Your task to perform on an android device: Check the news Image 0: 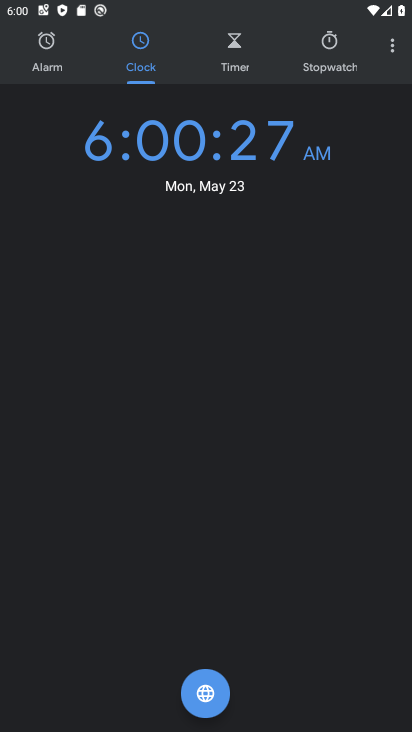
Step 0: press back button
Your task to perform on an android device: Check the news Image 1: 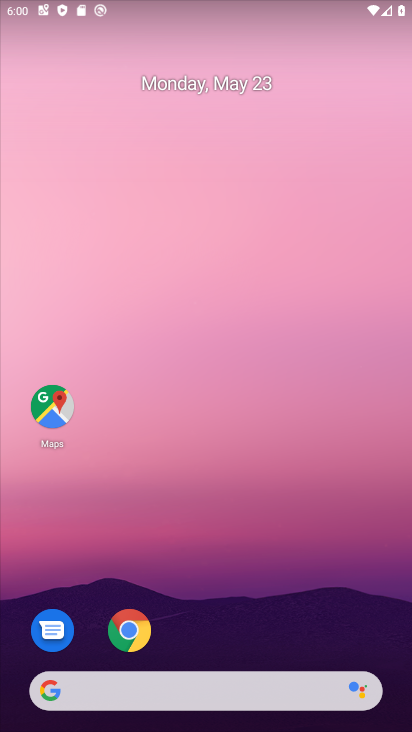
Step 1: drag from (256, 566) to (252, 5)
Your task to perform on an android device: Check the news Image 2: 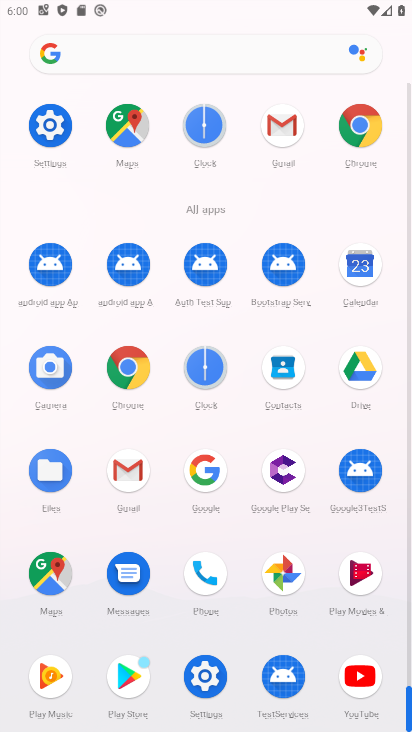
Step 2: drag from (12, 547) to (10, 207)
Your task to perform on an android device: Check the news Image 3: 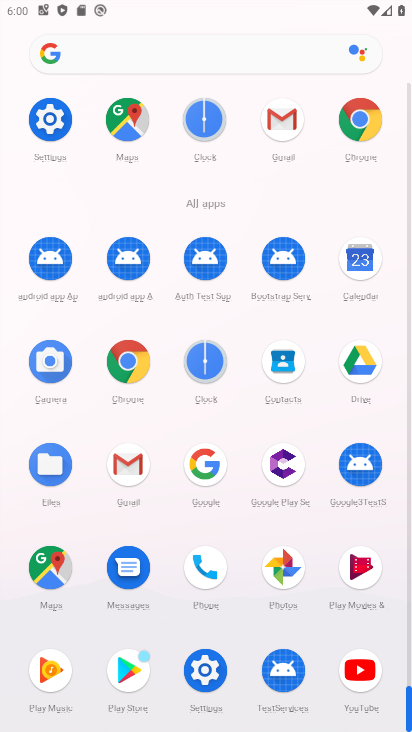
Step 3: click (126, 361)
Your task to perform on an android device: Check the news Image 4: 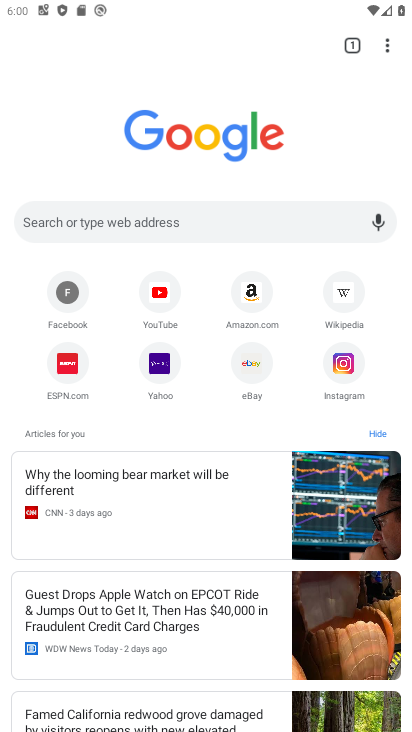
Step 4: click (215, 219)
Your task to perform on an android device: Check the news Image 5: 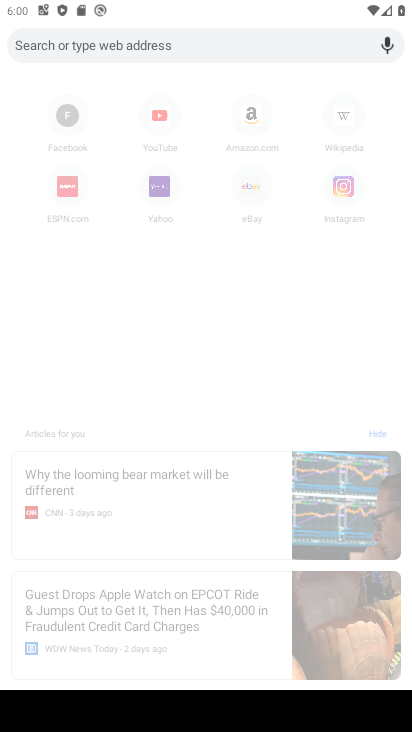
Step 5: type "Check the news"
Your task to perform on an android device: Check the news Image 6: 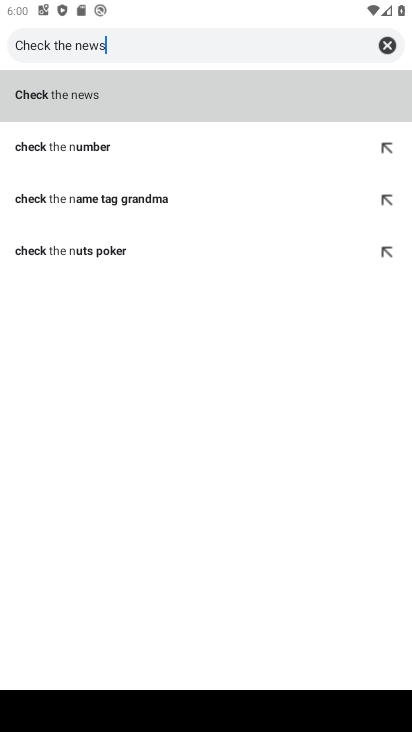
Step 6: type ""
Your task to perform on an android device: Check the news Image 7: 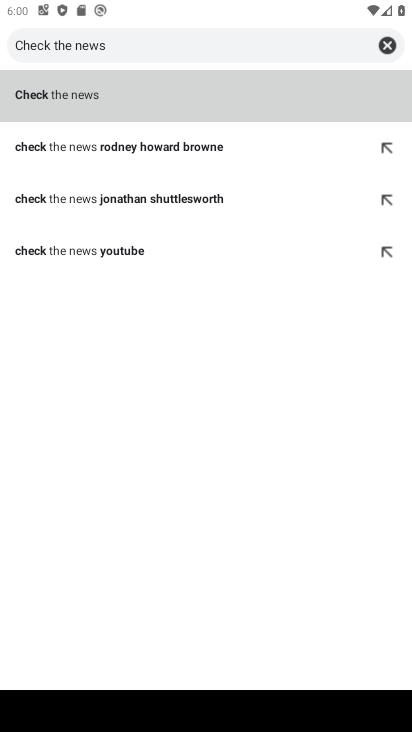
Step 7: click (103, 99)
Your task to perform on an android device: Check the news Image 8: 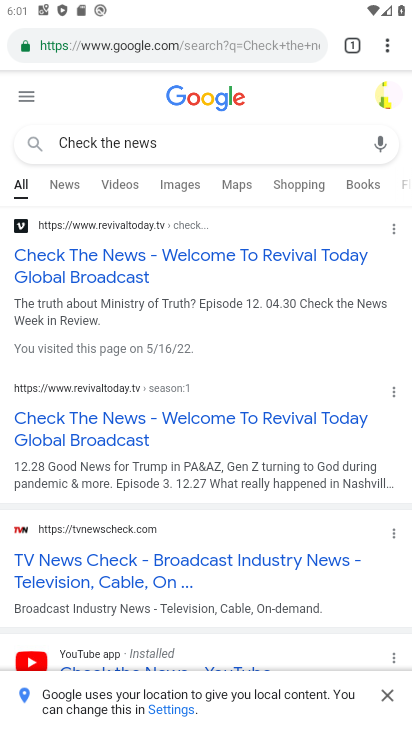
Step 8: click (49, 184)
Your task to perform on an android device: Check the news Image 9: 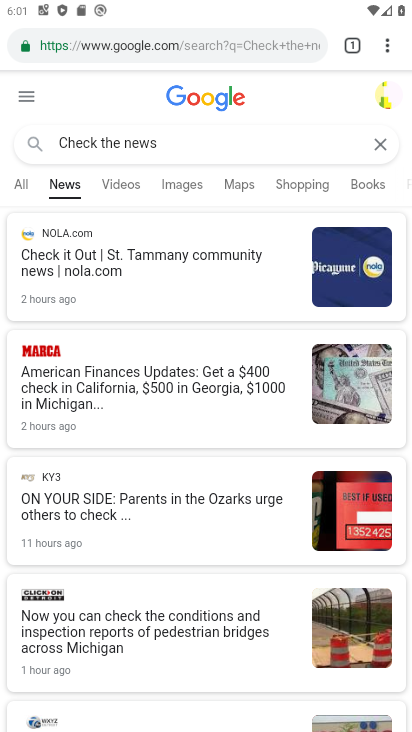
Step 9: task complete